Your task to perform on an android device: Open location settings Image 0: 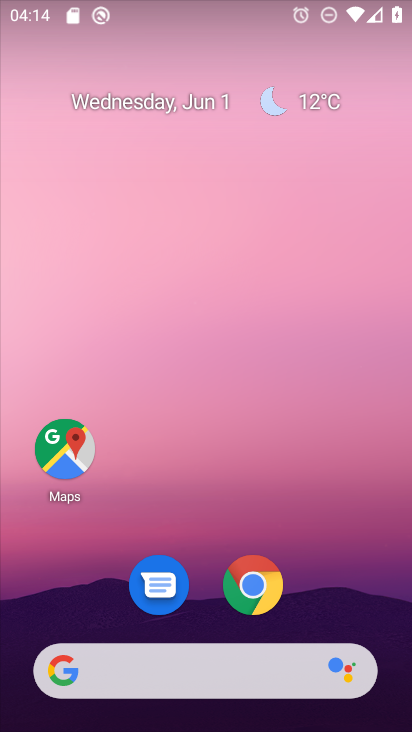
Step 0: drag from (293, 541) to (284, 50)
Your task to perform on an android device: Open location settings Image 1: 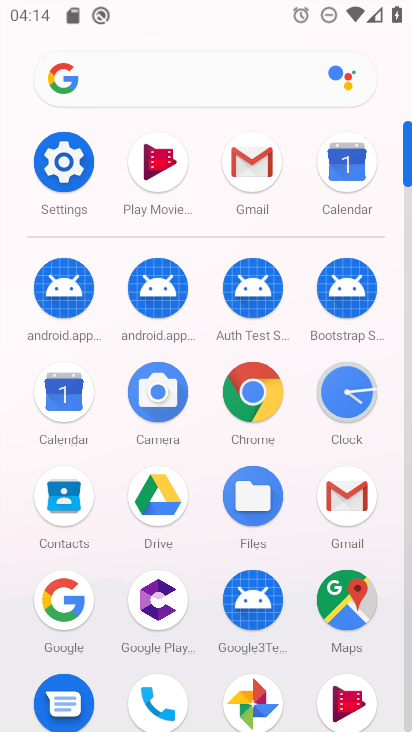
Step 1: click (57, 159)
Your task to perform on an android device: Open location settings Image 2: 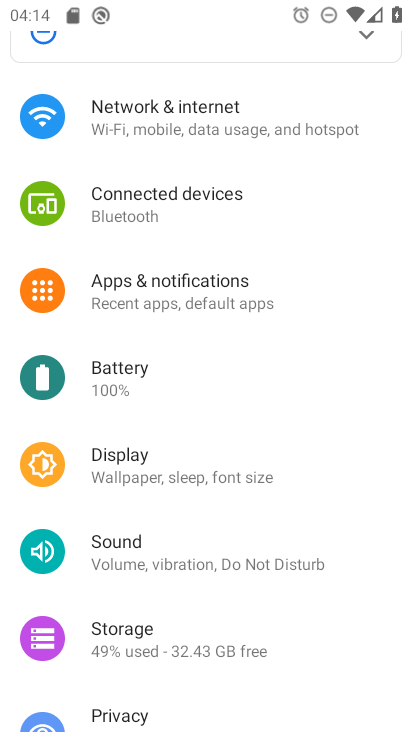
Step 2: drag from (229, 395) to (249, 102)
Your task to perform on an android device: Open location settings Image 3: 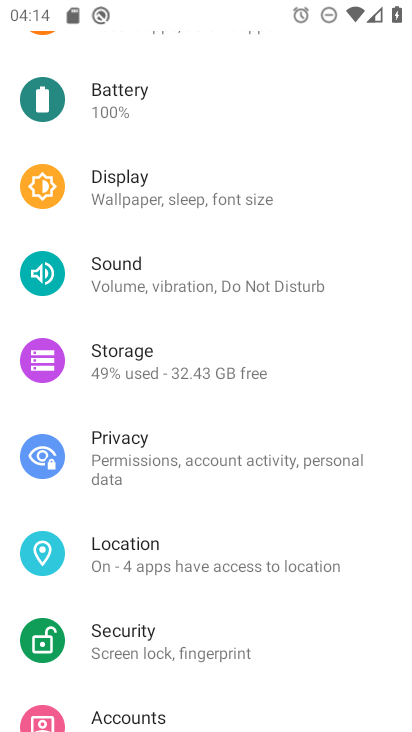
Step 3: click (179, 560)
Your task to perform on an android device: Open location settings Image 4: 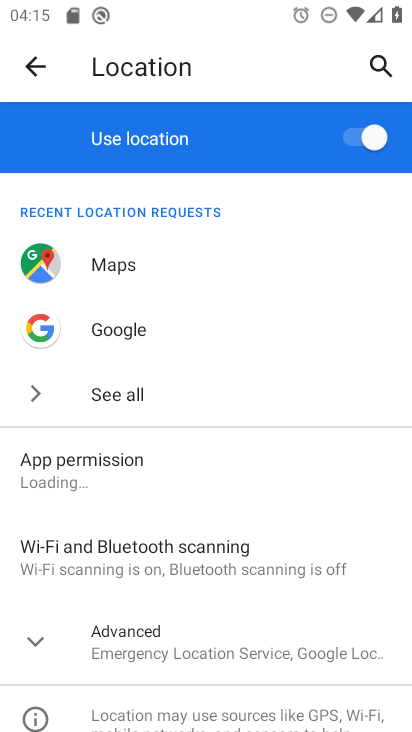
Step 4: task complete